Your task to perform on an android device: Go to sound settings Image 0: 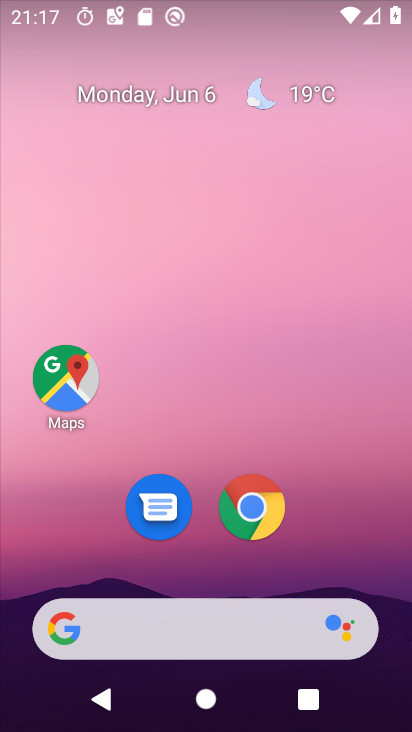
Step 0: press home button
Your task to perform on an android device: Go to sound settings Image 1: 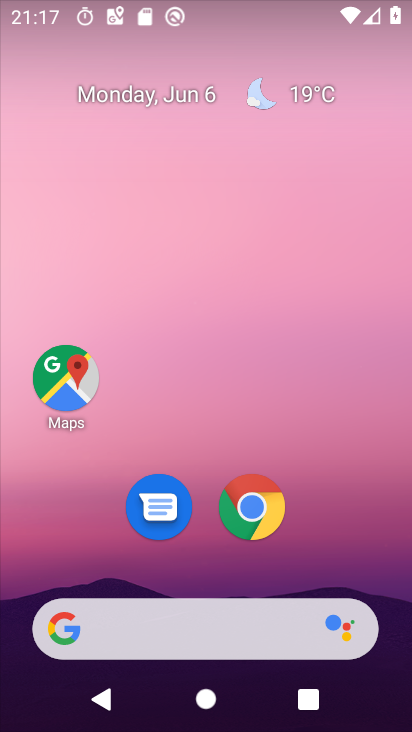
Step 1: drag from (402, 540) to (411, 138)
Your task to perform on an android device: Go to sound settings Image 2: 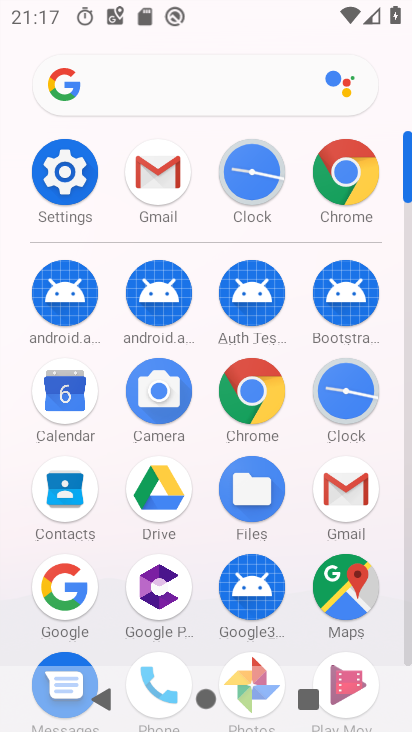
Step 2: click (50, 186)
Your task to perform on an android device: Go to sound settings Image 3: 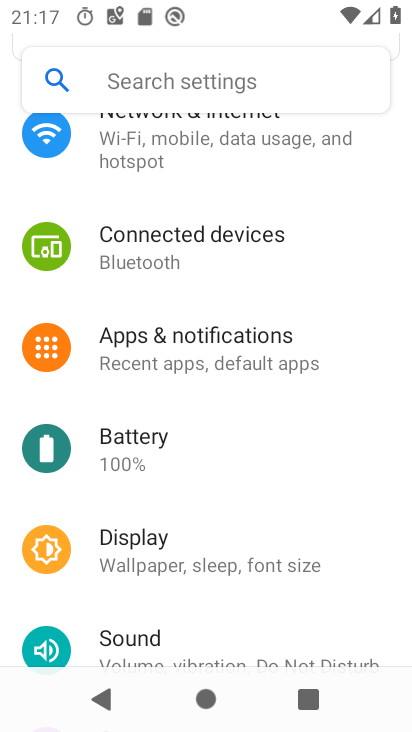
Step 3: drag from (201, 566) to (214, 313)
Your task to perform on an android device: Go to sound settings Image 4: 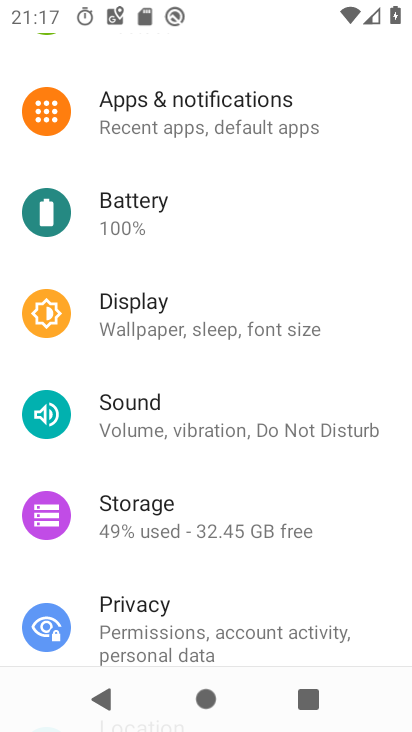
Step 4: click (216, 420)
Your task to perform on an android device: Go to sound settings Image 5: 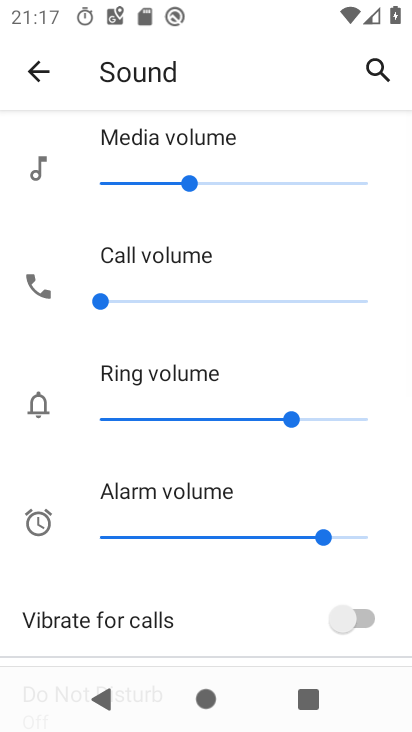
Step 5: task complete